Your task to perform on an android device: manage bookmarks in the chrome app Image 0: 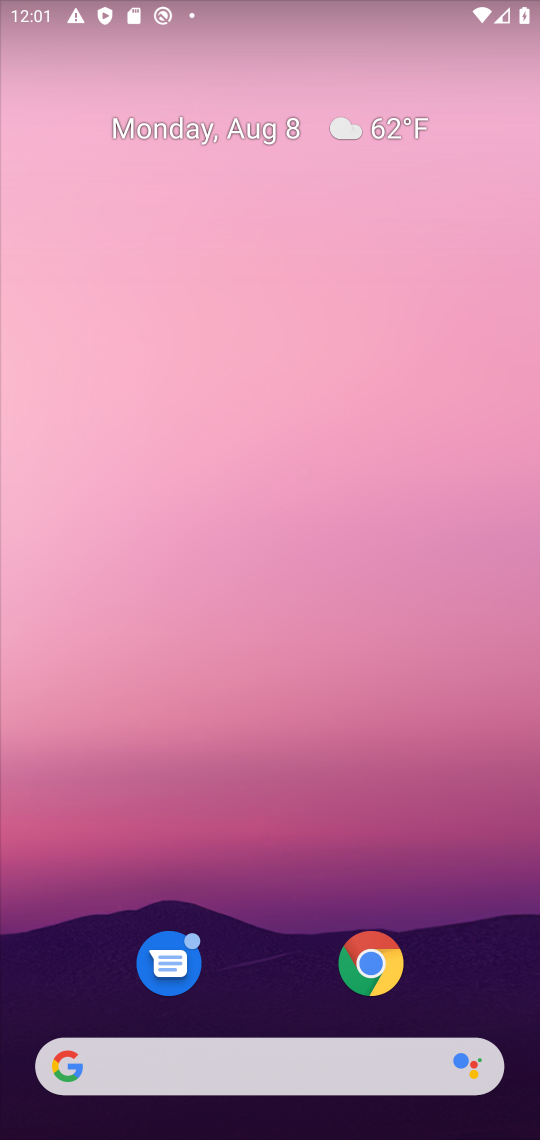
Step 0: drag from (394, 282) to (302, 42)
Your task to perform on an android device: manage bookmarks in the chrome app Image 1: 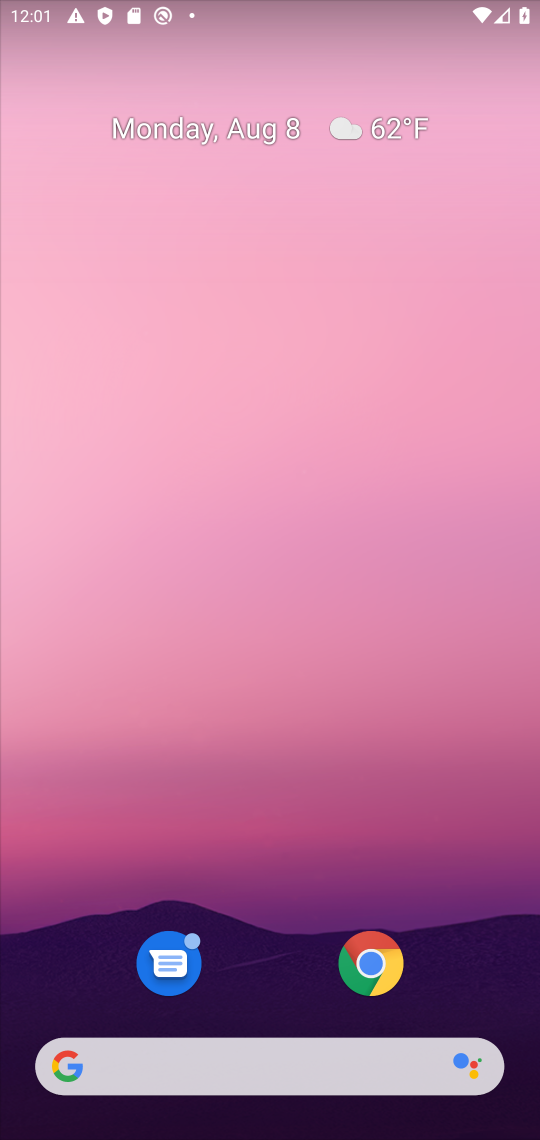
Step 1: drag from (450, 548) to (344, 155)
Your task to perform on an android device: manage bookmarks in the chrome app Image 2: 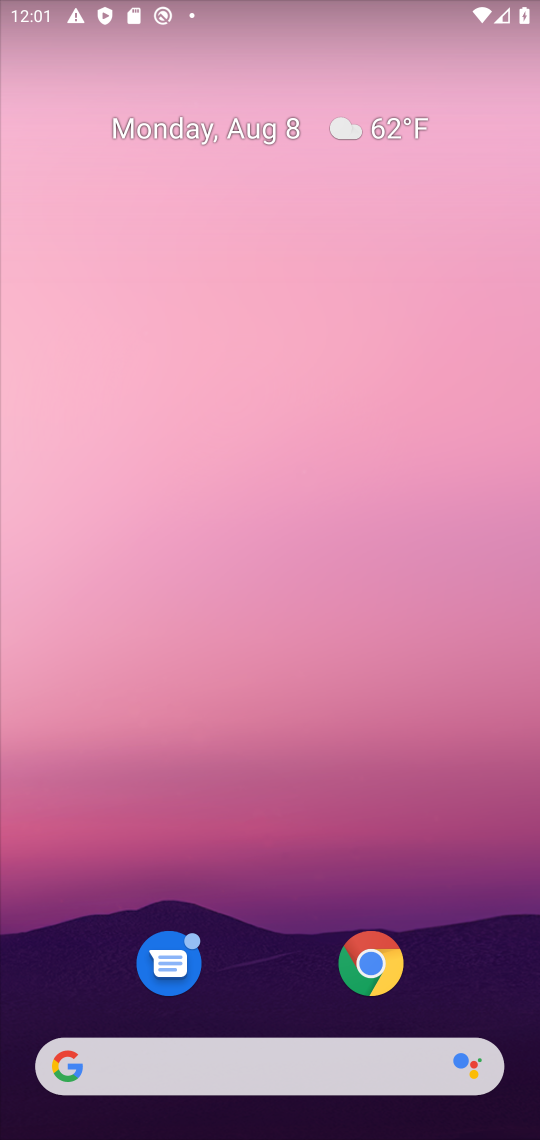
Step 2: drag from (487, 993) to (282, 21)
Your task to perform on an android device: manage bookmarks in the chrome app Image 3: 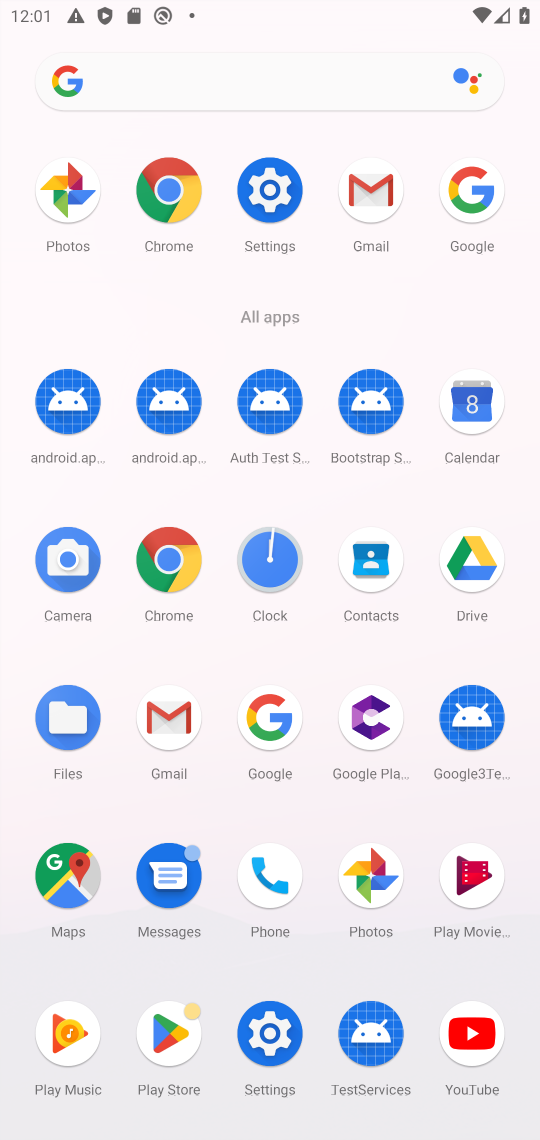
Step 3: click (169, 562)
Your task to perform on an android device: manage bookmarks in the chrome app Image 4: 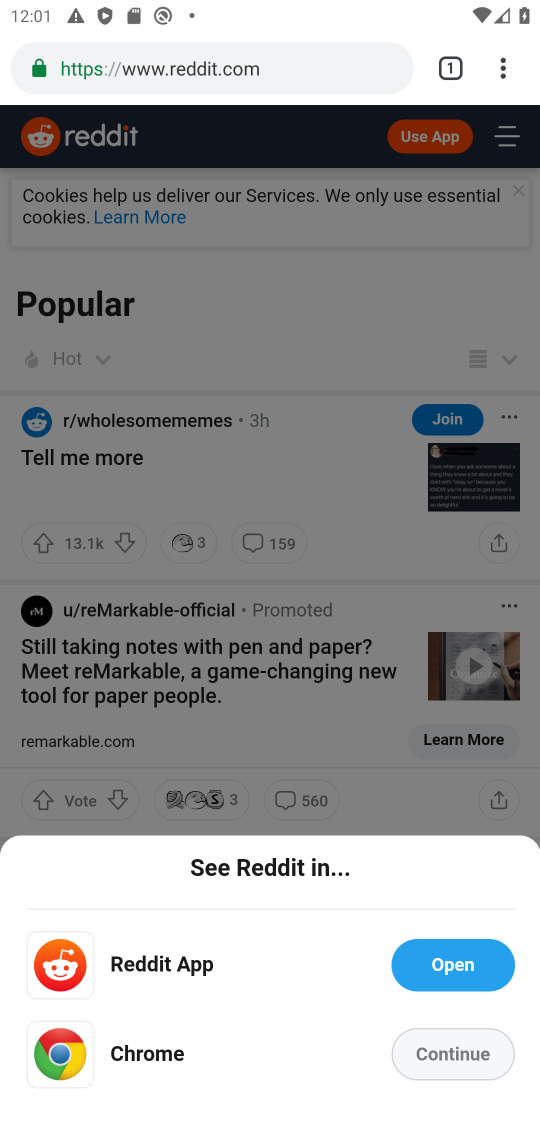
Step 4: task complete